Your task to perform on an android device: install app "ColorNote Notepad Notes" Image 0: 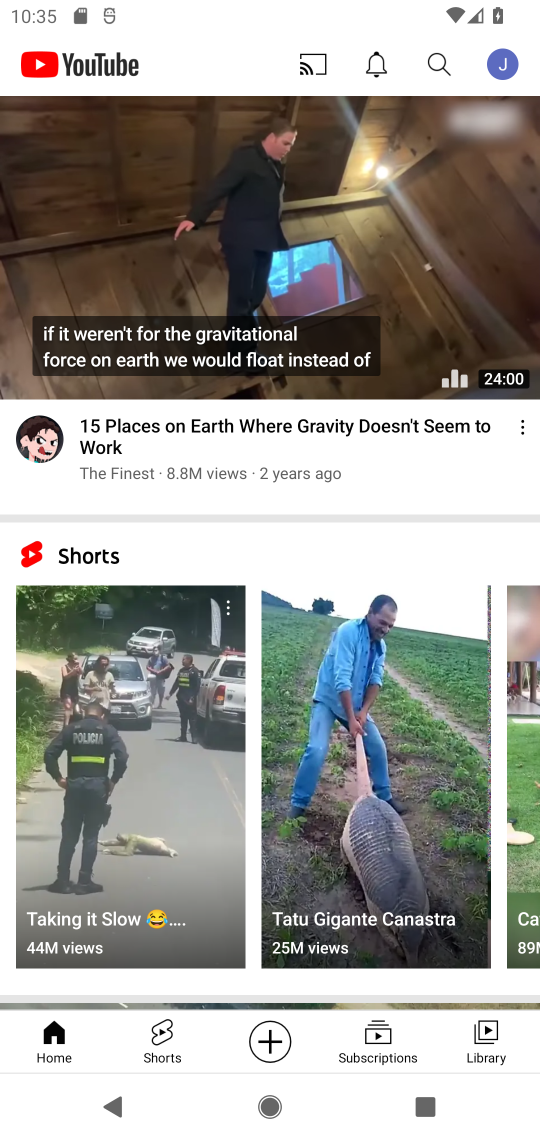
Step 0: press home button
Your task to perform on an android device: install app "ColorNote Notepad Notes" Image 1: 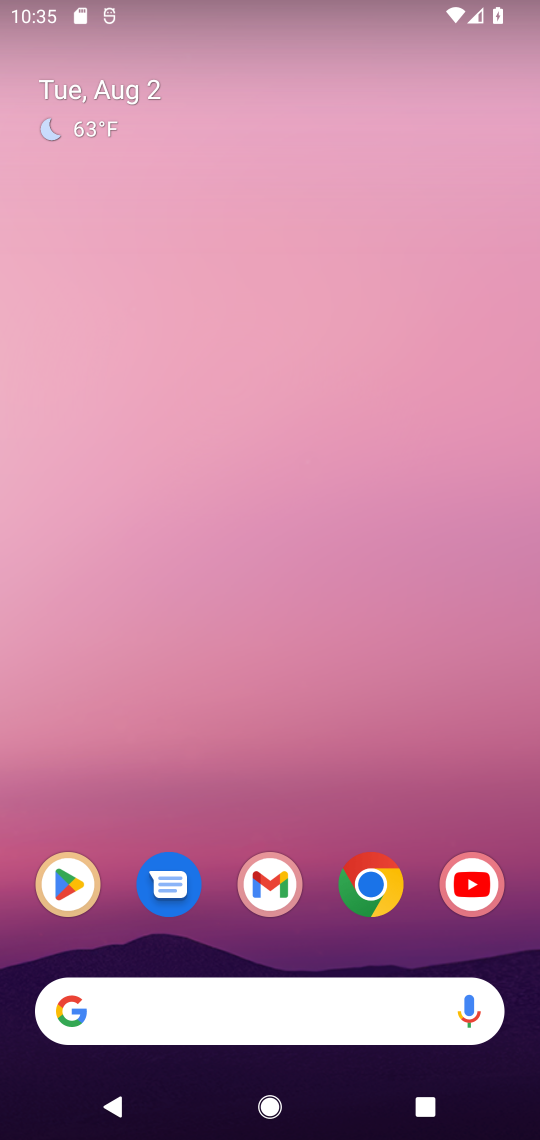
Step 1: click (61, 916)
Your task to perform on an android device: install app "ColorNote Notepad Notes" Image 2: 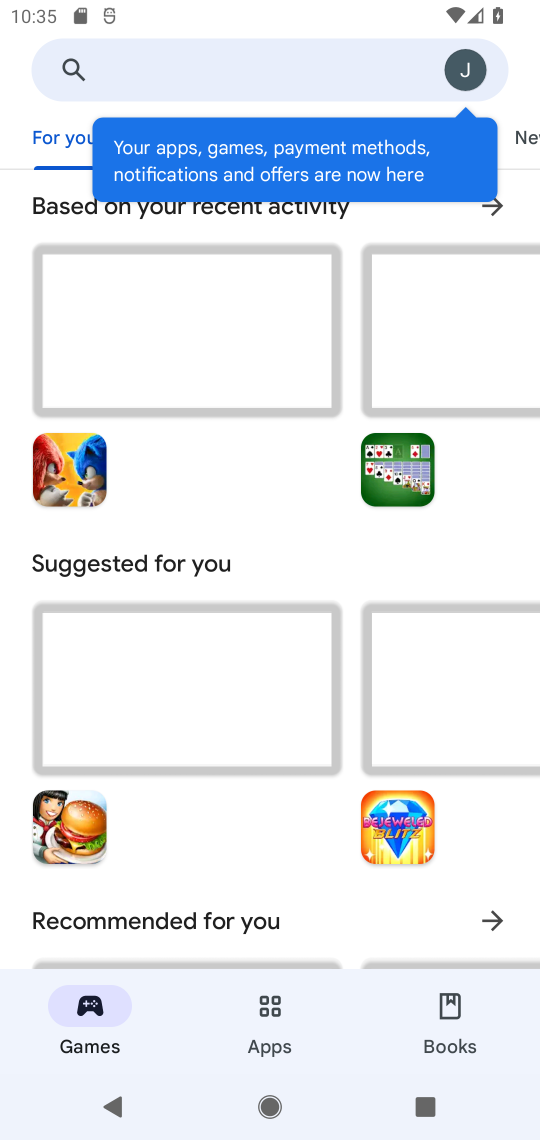
Step 2: click (269, 73)
Your task to perform on an android device: install app "ColorNote Notepad Notes" Image 3: 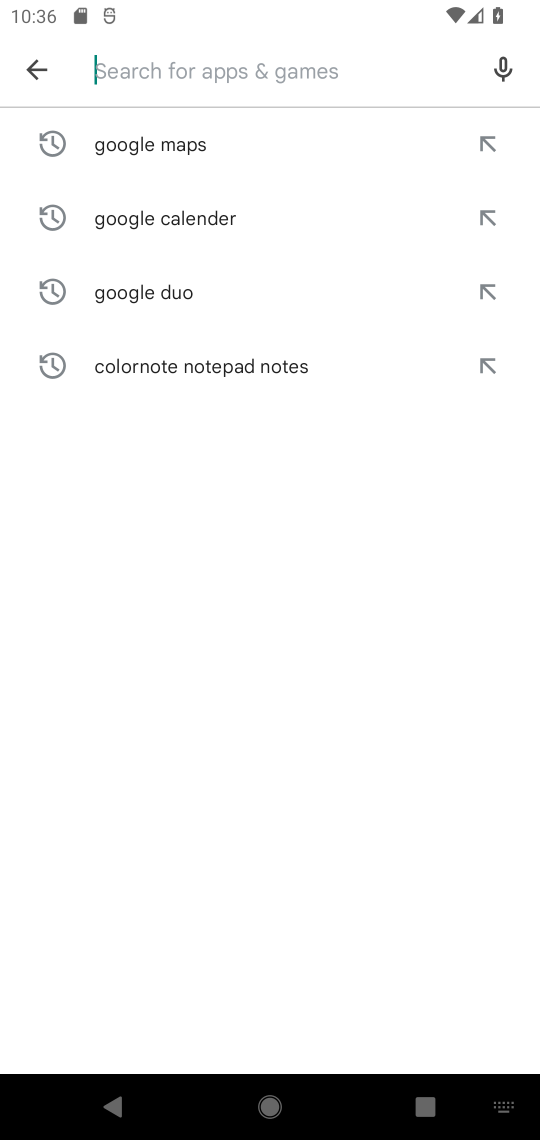
Step 3: type "colornote notepad notes"
Your task to perform on an android device: install app "ColorNote Notepad Notes" Image 4: 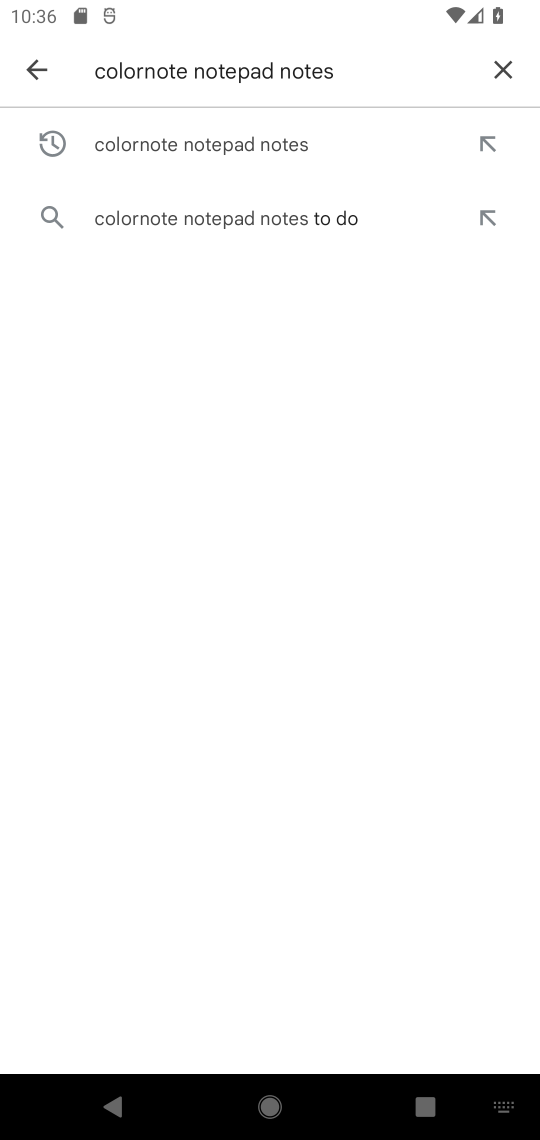
Step 4: click (220, 156)
Your task to perform on an android device: install app "ColorNote Notepad Notes" Image 5: 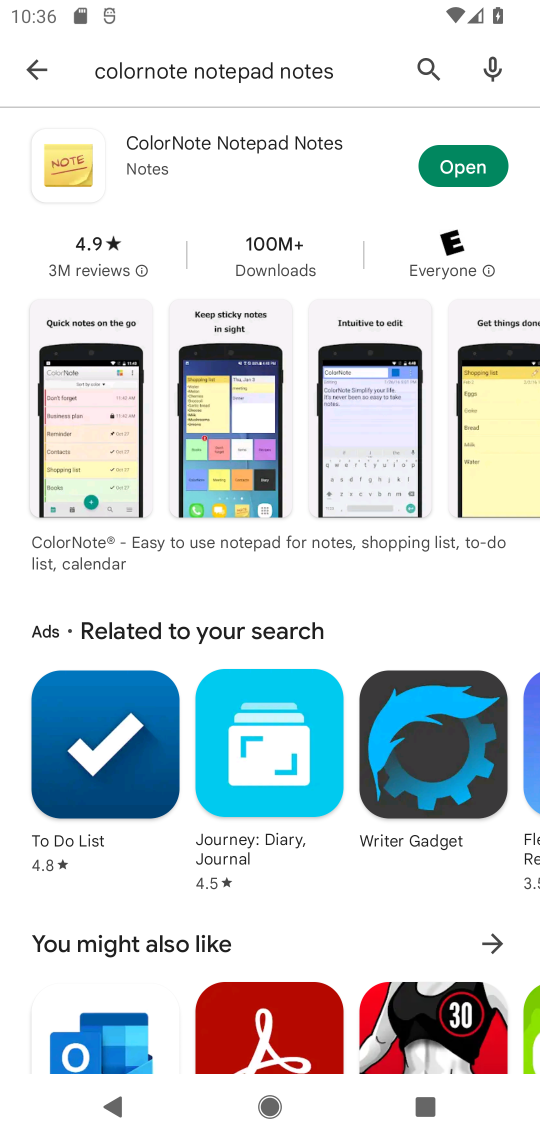
Step 5: task complete